Your task to perform on an android device: Turn on the flashlight Image 0: 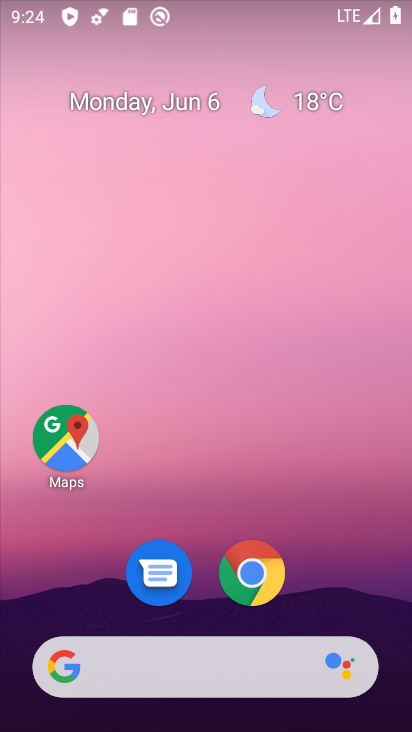
Step 0: drag from (191, 528) to (235, 55)
Your task to perform on an android device: Turn on the flashlight Image 1: 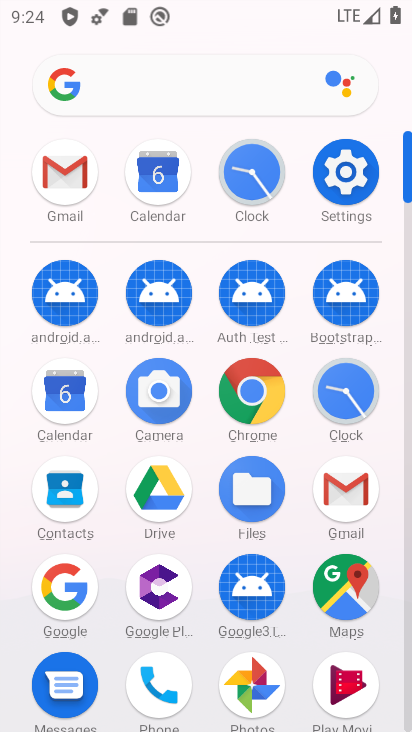
Step 1: click (345, 182)
Your task to perform on an android device: Turn on the flashlight Image 2: 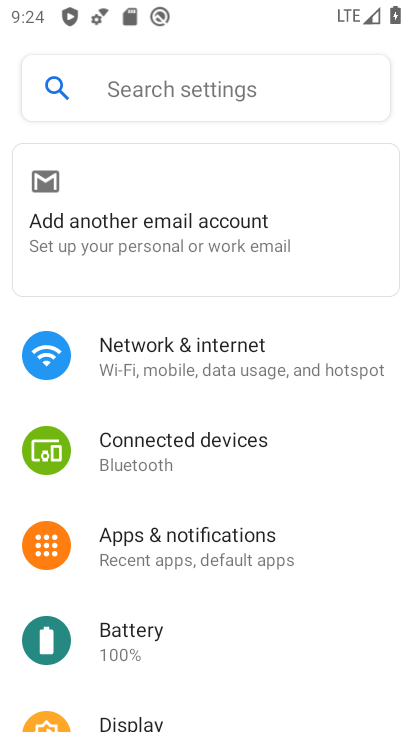
Step 2: click (145, 97)
Your task to perform on an android device: Turn on the flashlight Image 3: 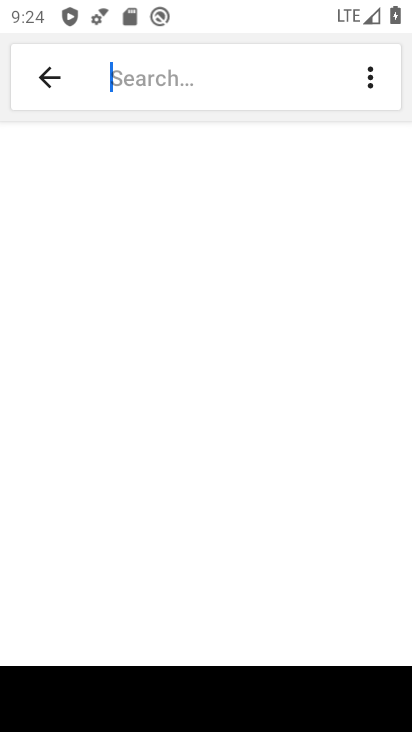
Step 3: type "flashlight"
Your task to perform on an android device: Turn on the flashlight Image 4: 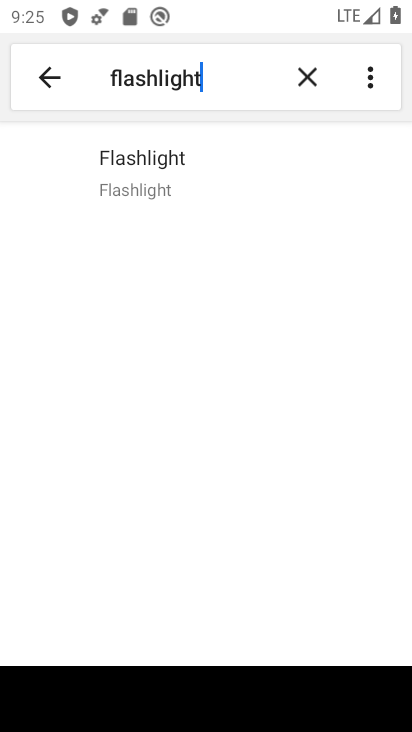
Step 4: click (162, 169)
Your task to perform on an android device: Turn on the flashlight Image 5: 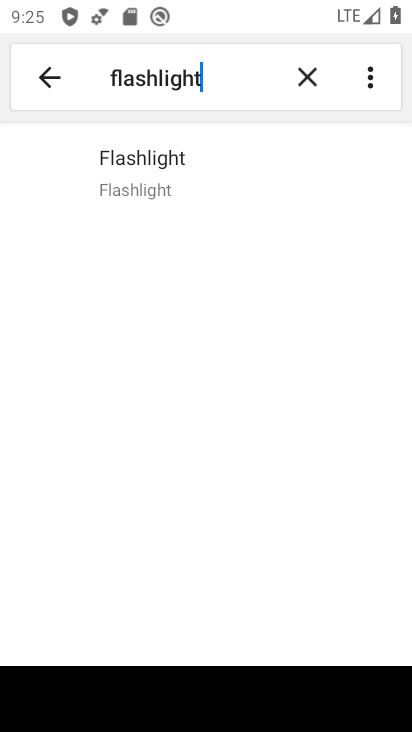
Step 5: click (158, 179)
Your task to perform on an android device: Turn on the flashlight Image 6: 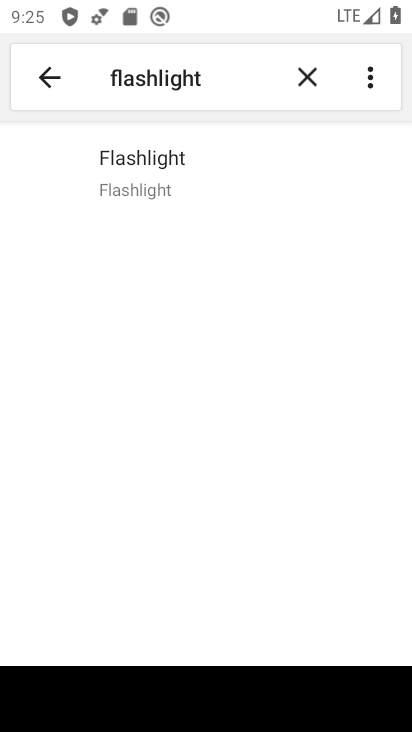
Step 6: task complete